Your task to perform on an android device: check data usage Image 0: 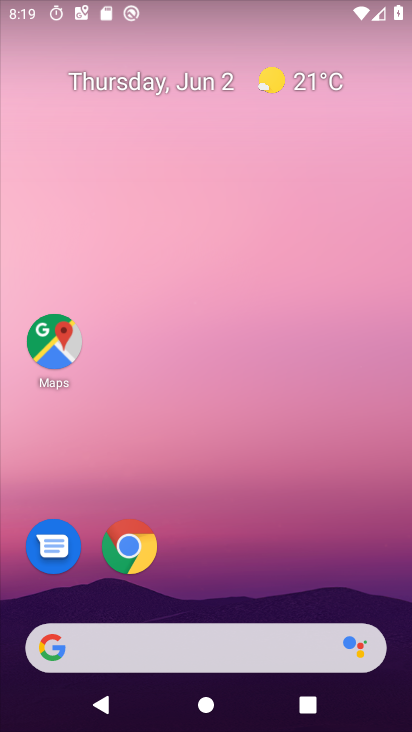
Step 0: drag from (289, 526) to (276, 173)
Your task to perform on an android device: check data usage Image 1: 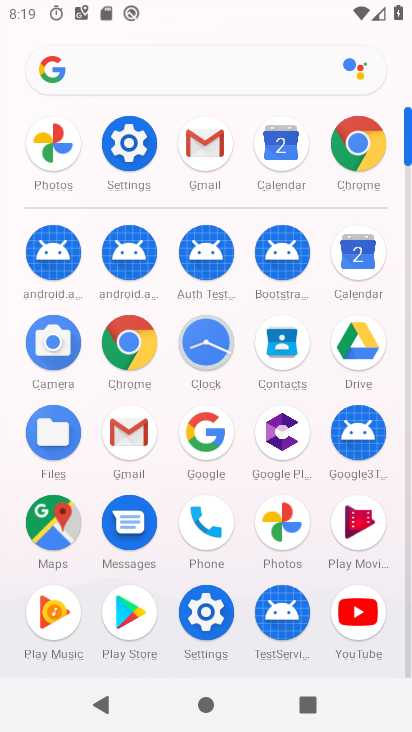
Step 1: click (213, 601)
Your task to perform on an android device: check data usage Image 2: 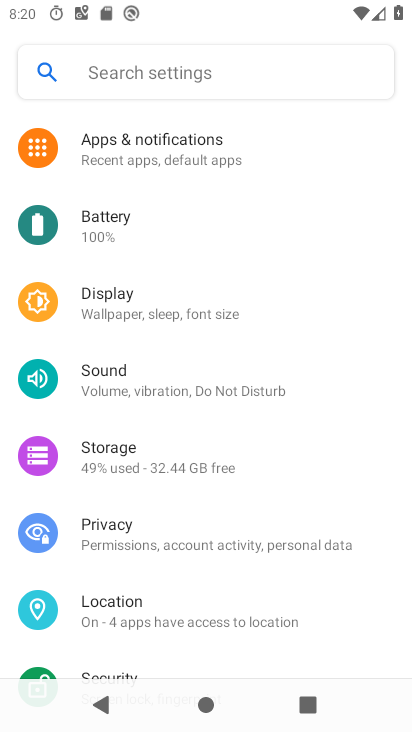
Step 2: click (196, 150)
Your task to perform on an android device: check data usage Image 3: 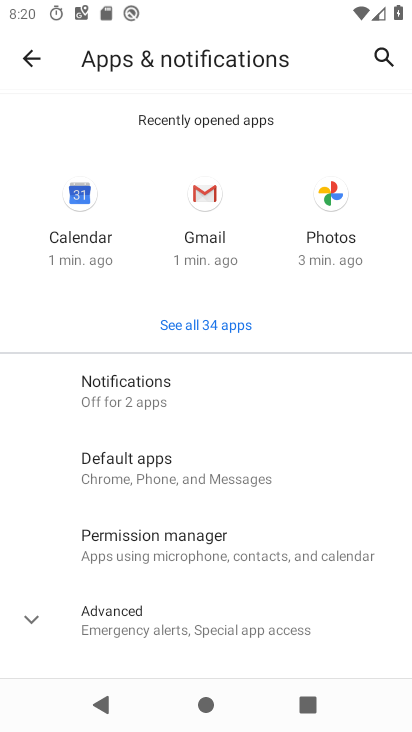
Step 3: press home button
Your task to perform on an android device: check data usage Image 4: 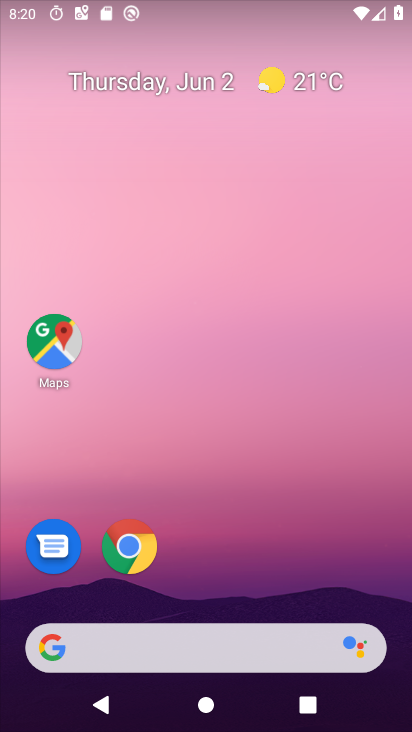
Step 4: drag from (167, 488) to (156, 130)
Your task to perform on an android device: check data usage Image 5: 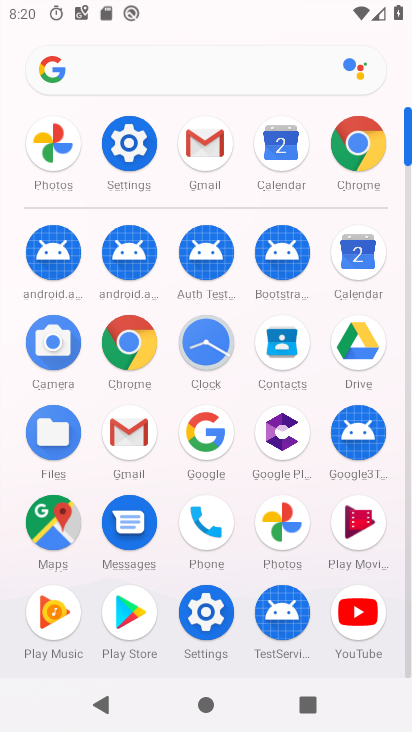
Step 5: click (123, 153)
Your task to perform on an android device: check data usage Image 6: 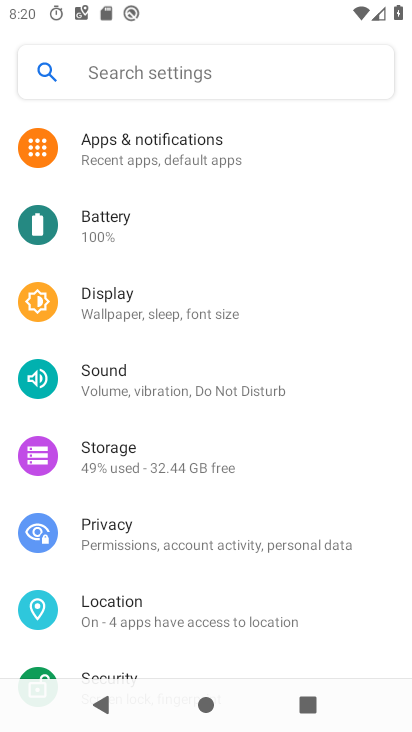
Step 6: drag from (139, 149) to (195, 554)
Your task to perform on an android device: check data usage Image 7: 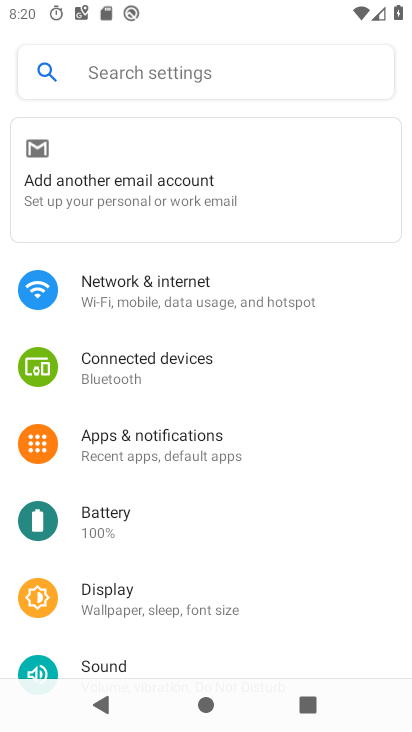
Step 7: click (195, 306)
Your task to perform on an android device: check data usage Image 8: 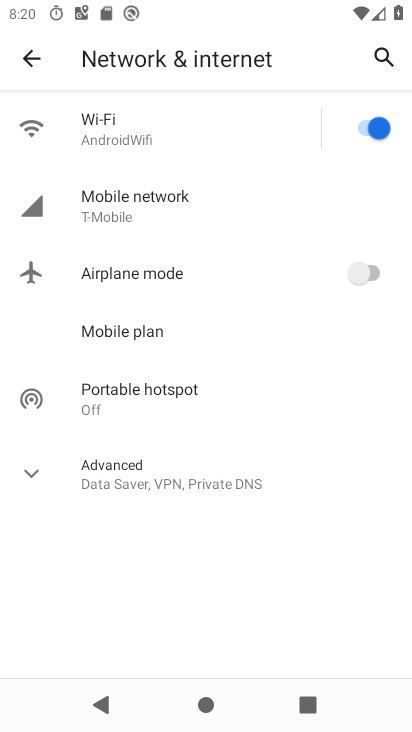
Step 8: click (153, 189)
Your task to perform on an android device: check data usage Image 9: 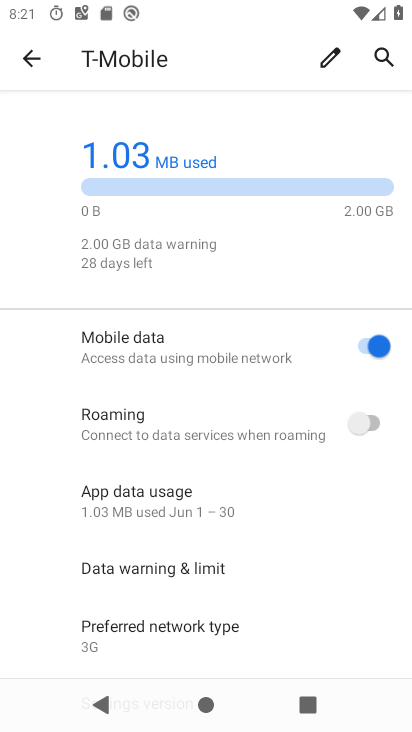
Step 9: task complete